Your task to perform on an android device: turn off wifi Image 0: 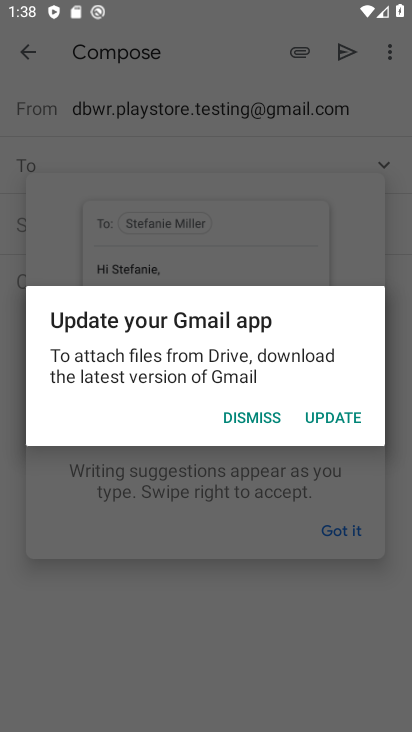
Step 0: press home button
Your task to perform on an android device: turn off wifi Image 1: 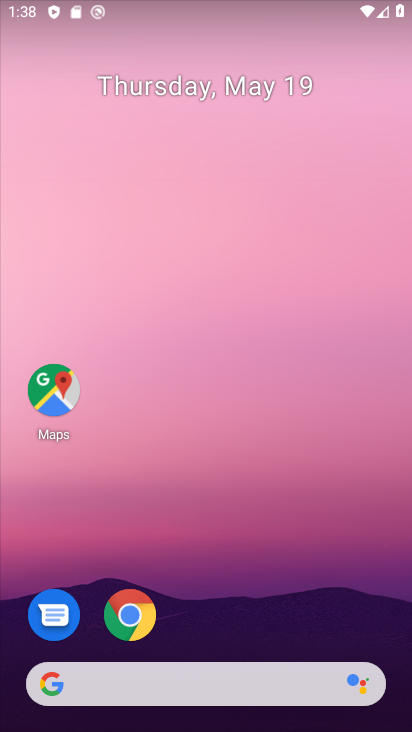
Step 1: drag from (231, 448) to (255, 172)
Your task to perform on an android device: turn off wifi Image 2: 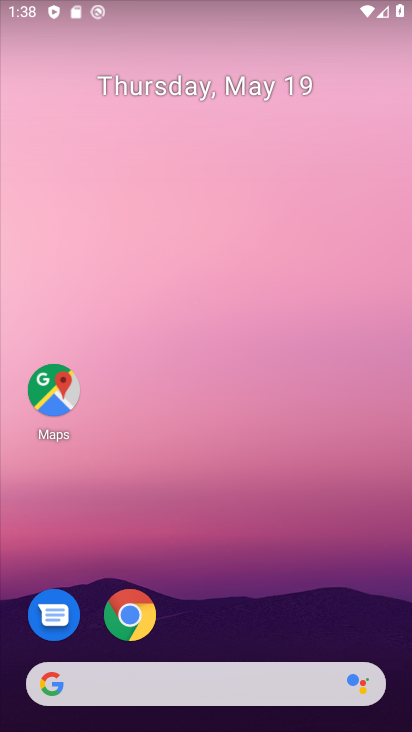
Step 2: drag from (261, 481) to (295, 143)
Your task to perform on an android device: turn off wifi Image 3: 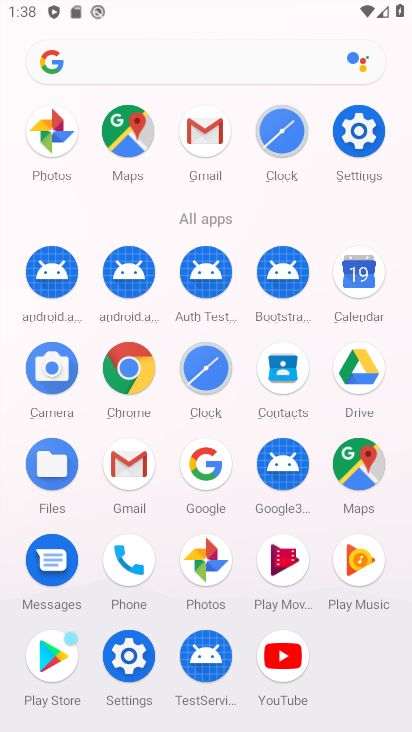
Step 3: click (369, 124)
Your task to perform on an android device: turn off wifi Image 4: 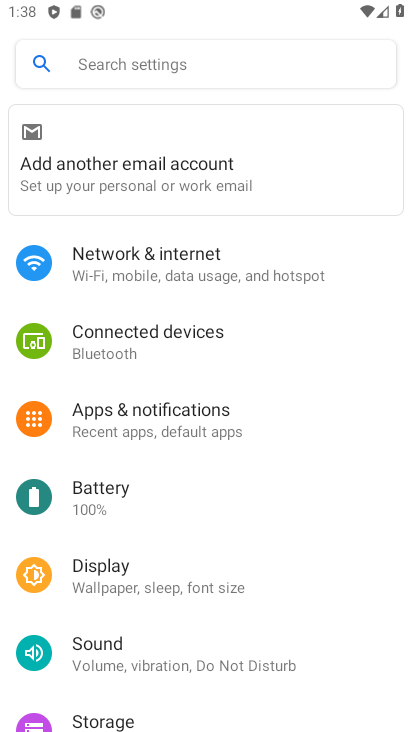
Step 4: click (159, 268)
Your task to perform on an android device: turn off wifi Image 5: 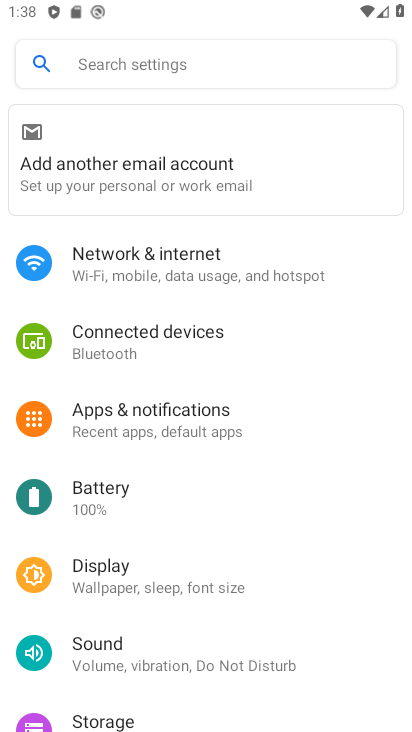
Step 5: click (171, 268)
Your task to perform on an android device: turn off wifi Image 6: 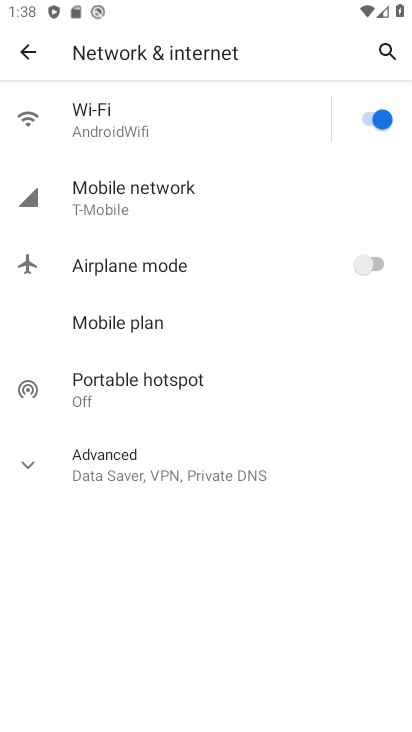
Step 6: click (148, 118)
Your task to perform on an android device: turn off wifi Image 7: 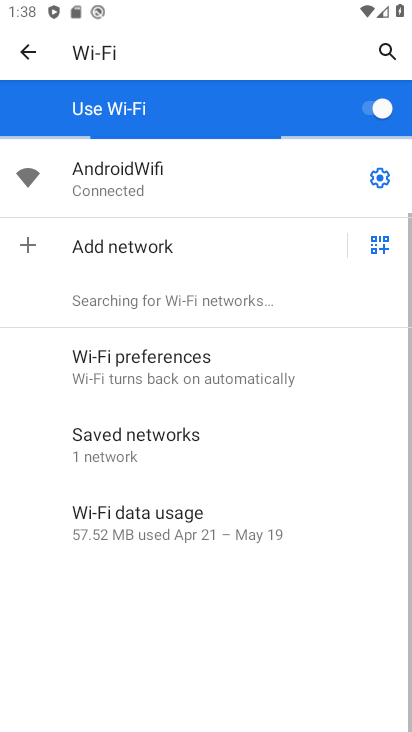
Step 7: click (363, 114)
Your task to perform on an android device: turn off wifi Image 8: 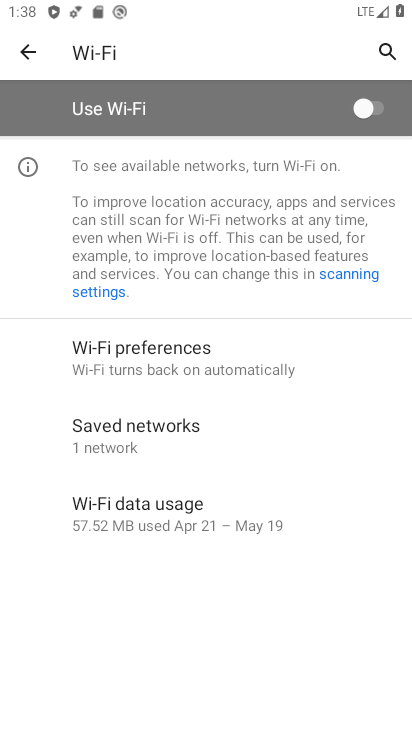
Step 8: task complete